Your task to perform on an android device: Empty the shopping cart on newegg. Add "macbook pro 15 inch" to the cart on newegg Image 0: 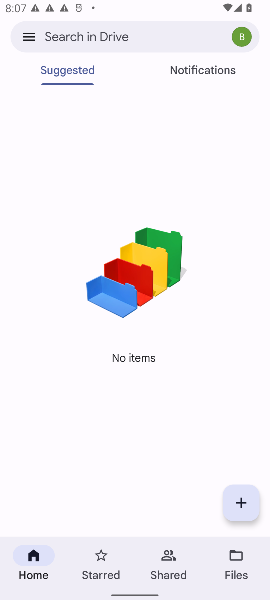
Step 0: press home button
Your task to perform on an android device: Empty the shopping cart on newegg. Add "macbook pro 15 inch" to the cart on newegg Image 1: 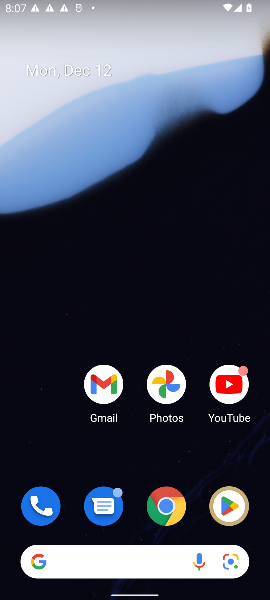
Step 1: click (144, 566)
Your task to perform on an android device: Empty the shopping cart on newegg. Add "macbook pro 15 inch" to the cart on newegg Image 2: 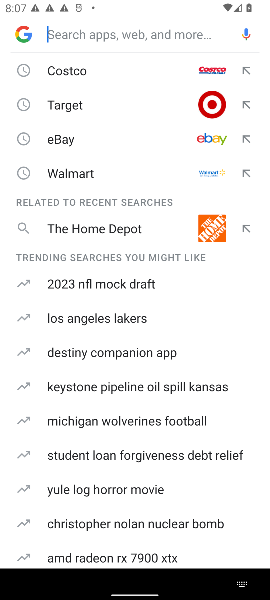
Step 2: type "newegg"
Your task to perform on an android device: Empty the shopping cart on newegg. Add "macbook pro 15 inch" to the cart on newegg Image 3: 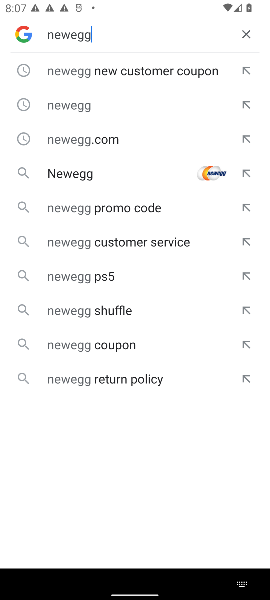
Step 3: click (90, 84)
Your task to perform on an android device: Empty the shopping cart on newegg. Add "macbook pro 15 inch" to the cart on newegg Image 4: 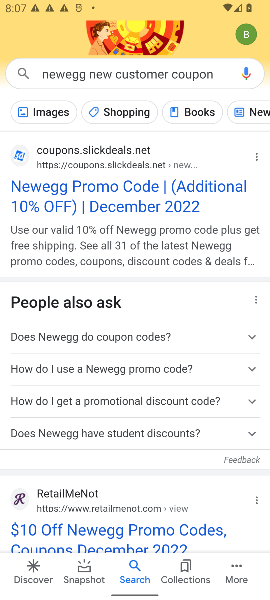
Step 4: click (82, 72)
Your task to perform on an android device: Empty the shopping cart on newegg. Add "macbook pro 15 inch" to the cart on newegg Image 5: 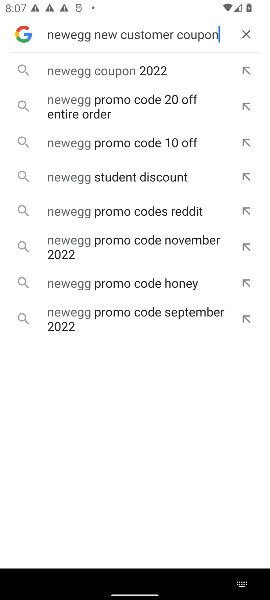
Step 5: click (248, 45)
Your task to perform on an android device: Empty the shopping cart on newegg. Add "macbook pro 15 inch" to the cart on newegg Image 6: 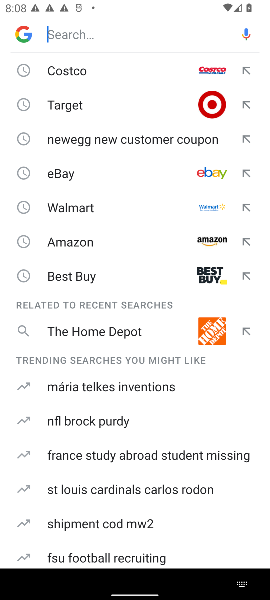
Step 6: type "newegg"
Your task to perform on an android device: Empty the shopping cart on newegg. Add "macbook pro 15 inch" to the cart on newegg Image 7: 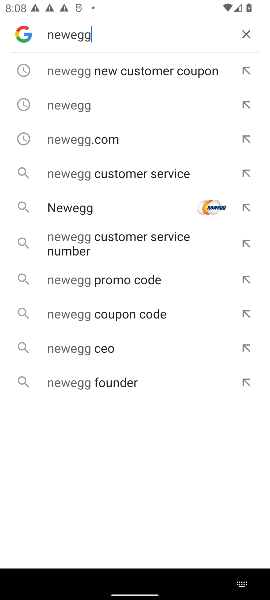
Step 7: click (88, 217)
Your task to perform on an android device: Empty the shopping cart on newegg. Add "macbook pro 15 inch" to the cart on newegg Image 8: 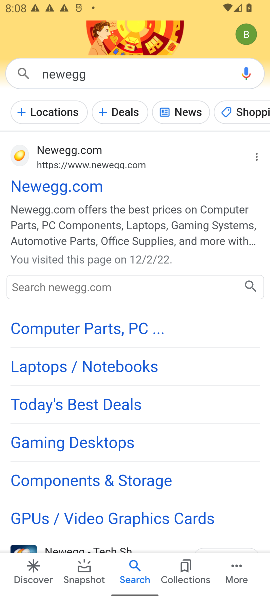
Step 8: click (68, 193)
Your task to perform on an android device: Empty the shopping cart on newegg. Add "macbook pro 15 inch" to the cart on newegg Image 9: 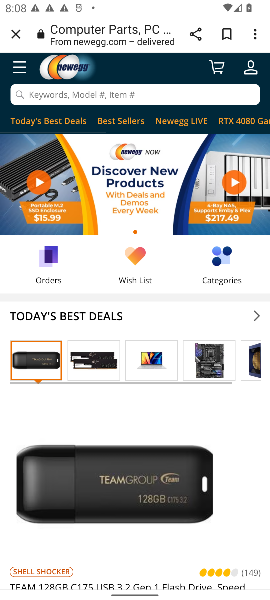
Step 9: click (115, 99)
Your task to perform on an android device: Empty the shopping cart on newegg. Add "macbook pro 15 inch" to the cart on newegg Image 10: 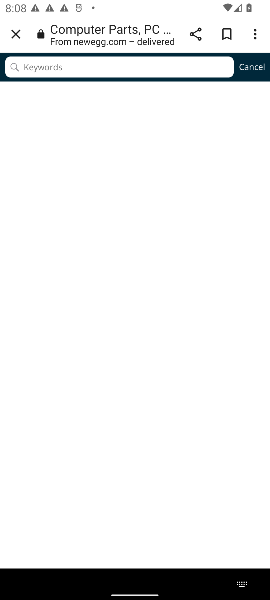
Step 10: click (13, 34)
Your task to perform on an android device: Empty the shopping cart on newegg. Add "macbook pro 15 inch" to the cart on newegg Image 11: 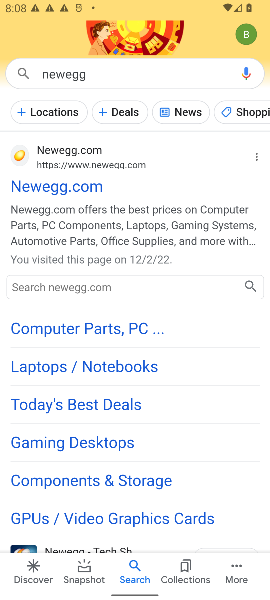
Step 11: click (87, 165)
Your task to perform on an android device: Empty the shopping cart on newegg. Add "macbook pro 15 inch" to the cart on newegg Image 12: 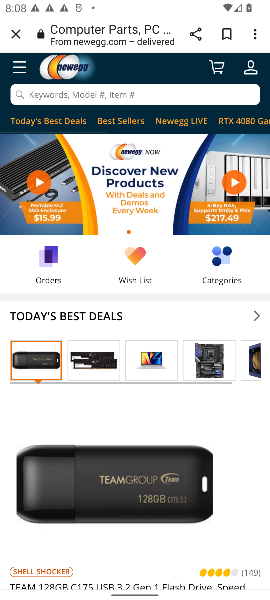
Step 12: click (211, 77)
Your task to perform on an android device: Empty the shopping cart on newegg. Add "macbook pro 15 inch" to the cart on newegg Image 13: 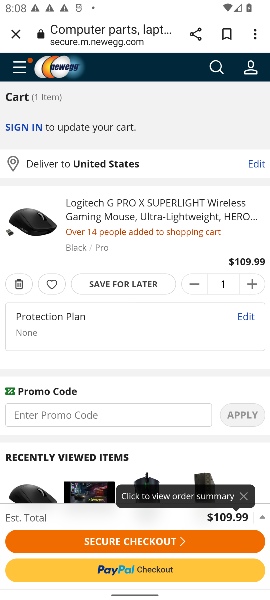
Step 13: click (23, 287)
Your task to perform on an android device: Empty the shopping cart on newegg. Add "macbook pro 15 inch" to the cart on newegg Image 14: 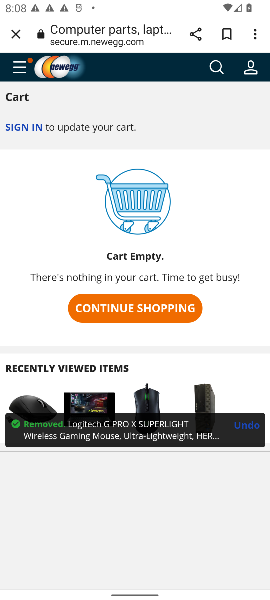
Step 14: click (214, 66)
Your task to perform on an android device: Empty the shopping cart on newegg. Add "macbook pro 15 inch" to the cart on newegg Image 15: 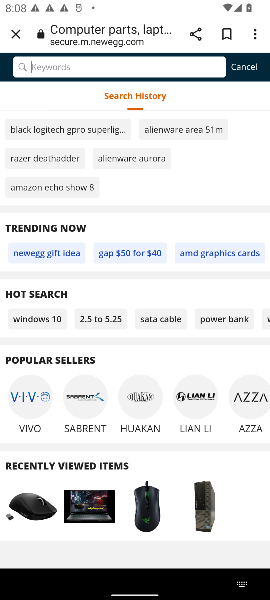
Step 15: type "macbook pro 15"
Your task to perform on an android device: Empty the shopping cart on newegg. Add "macbook pro 15 inch" to the cart on newegg Image 16: 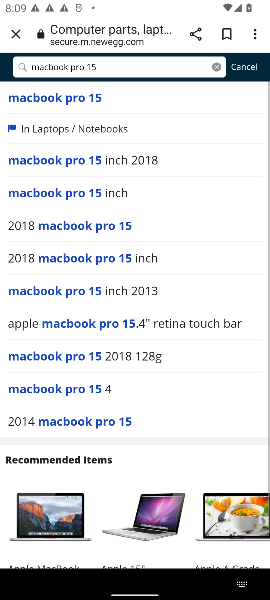
Step 16: click (68, 114)
Your task to perform on an android device: Empty the shopping cart on newegg. Add "macbook pro 15 inch" to the cart on newegg Image 17: 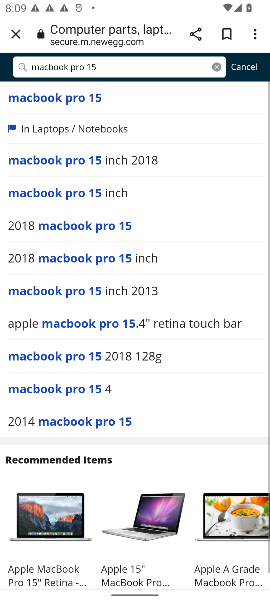
Step 17: click (76, 107)
Your task to perform on an android device: Empty the shopping cart on newegg. Add "macbook pro 15 inch" to the cart on newegg Image 18: 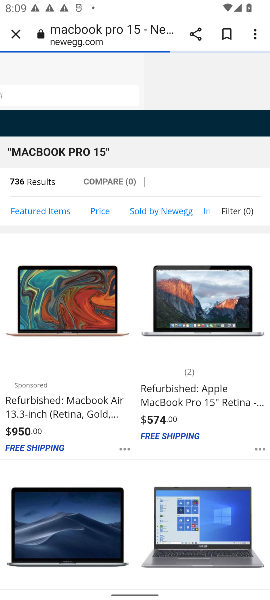
Step 18: click (76, 107)
Your task to perform on an android device: Empty the shopping cart on newegg. Add "macbook pro 15 inch" to the cart on newegg Image 19: 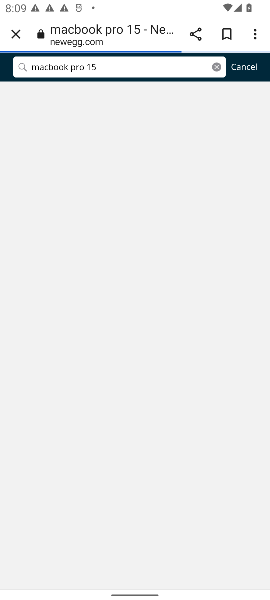
Step 19: click (24, 383)
Your task to perform on an android device: Empty the shopping cart on newegg. Add "macbook pro 15 inch" to the cart on newegg Image 20: 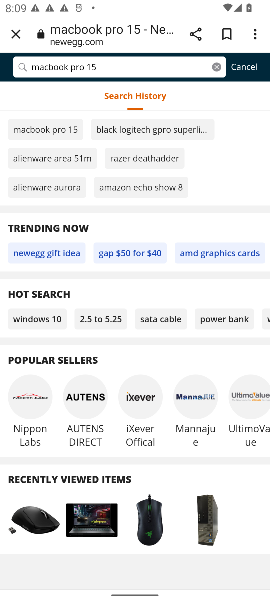
Step 20: task complete